Your task to perform on an android device: turn off notifications in google photos Image 0: 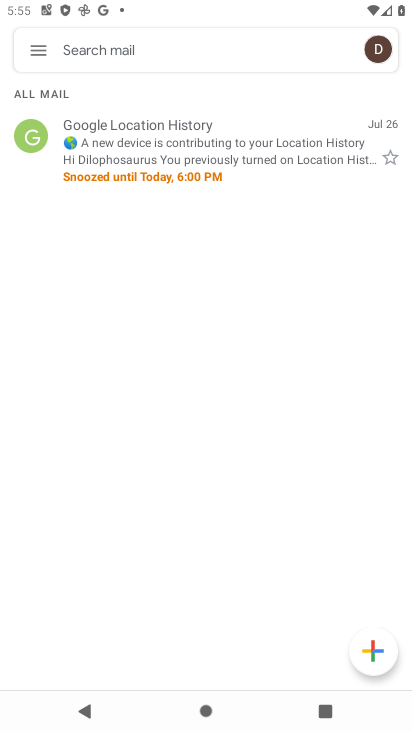
Step 0: press home button
Your task to perform on an android device: turn off notifications in google photos Image 1: 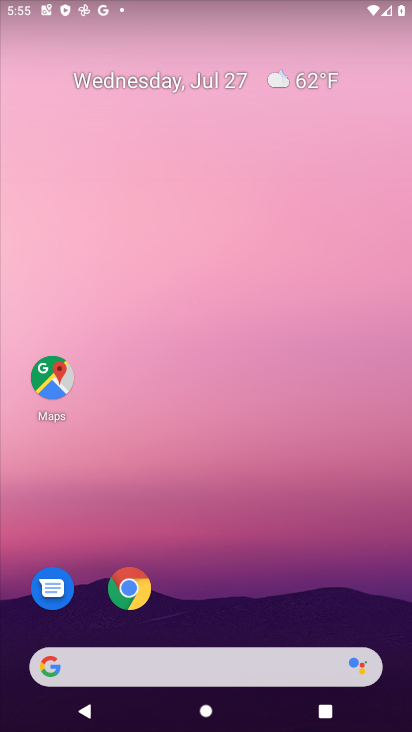
Step 1: drag from (177, 611) to (217, 48)
Your task to perform on an android device: turn off notifications in google photos Image 2: 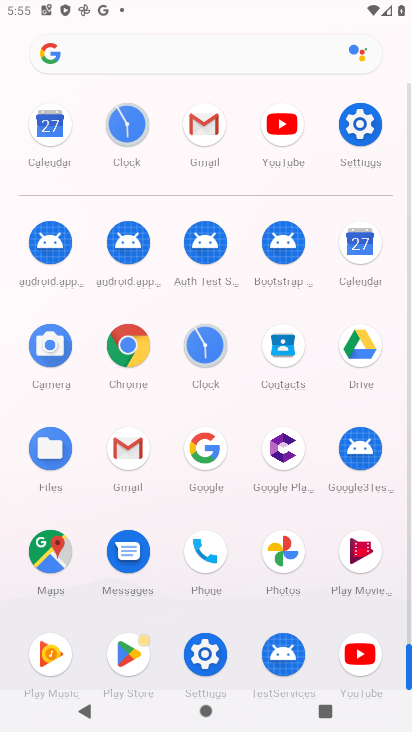
Step 2: click (278, 551)
Your task to perform on an android device: turn off notifications in google photos Image 3: 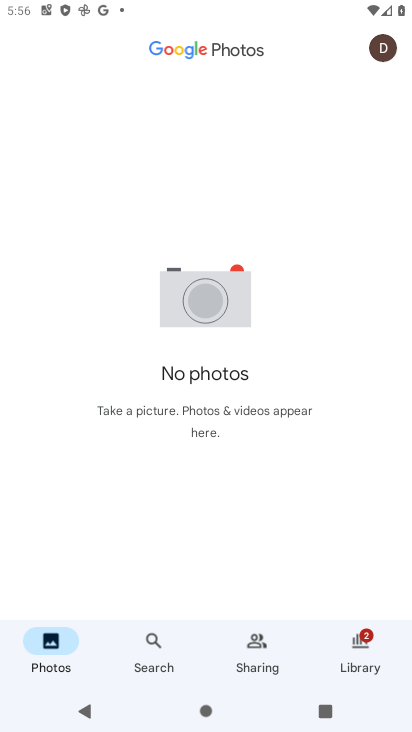
Step 3: task complete